Your task to perform on an android device: install app "Firefox Browser" Image 0: 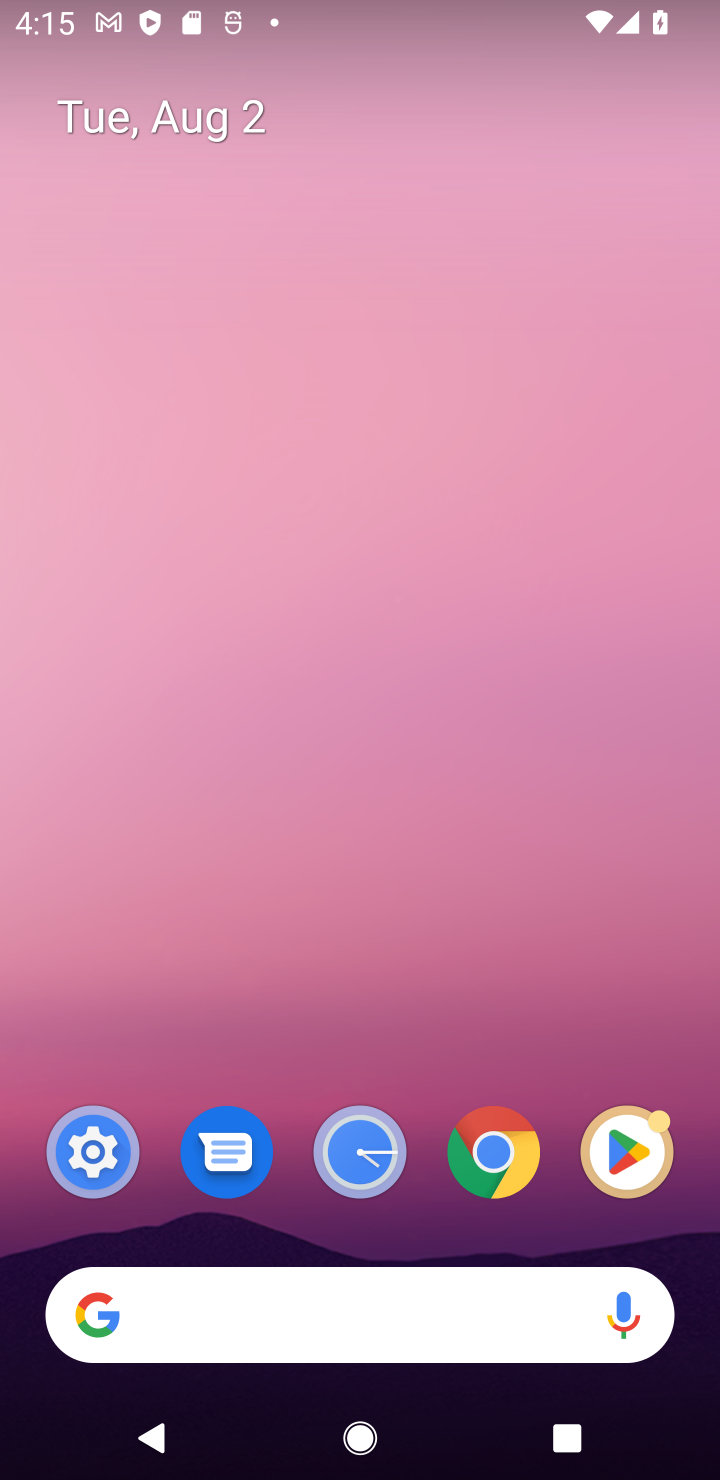
Step 0: drag from (569, 1190) to (572, 185)
Your task to perform on an android device: install app "Firefox Browser" Image 1: 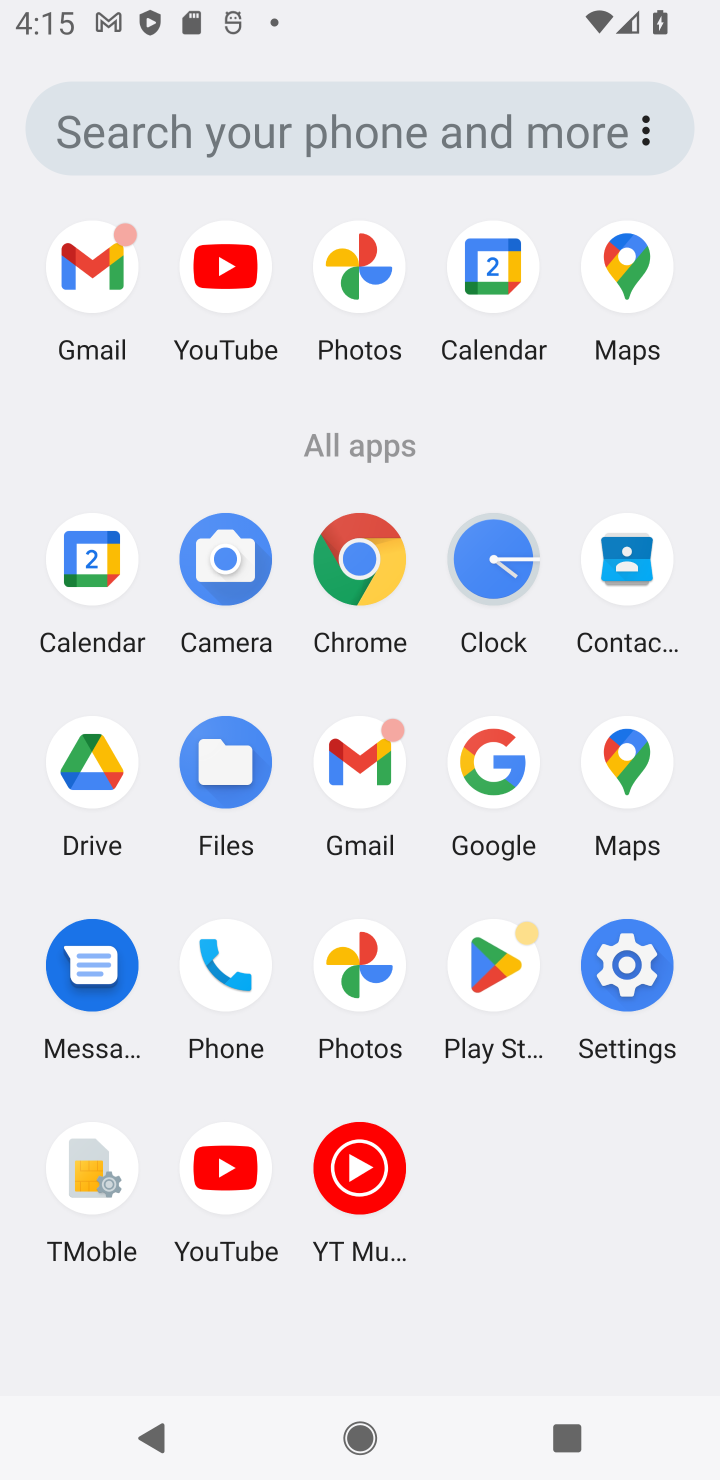
Step 1: click (499, 976)
Your task to perform on an android device: install app "Firefox Browser" Image 2: 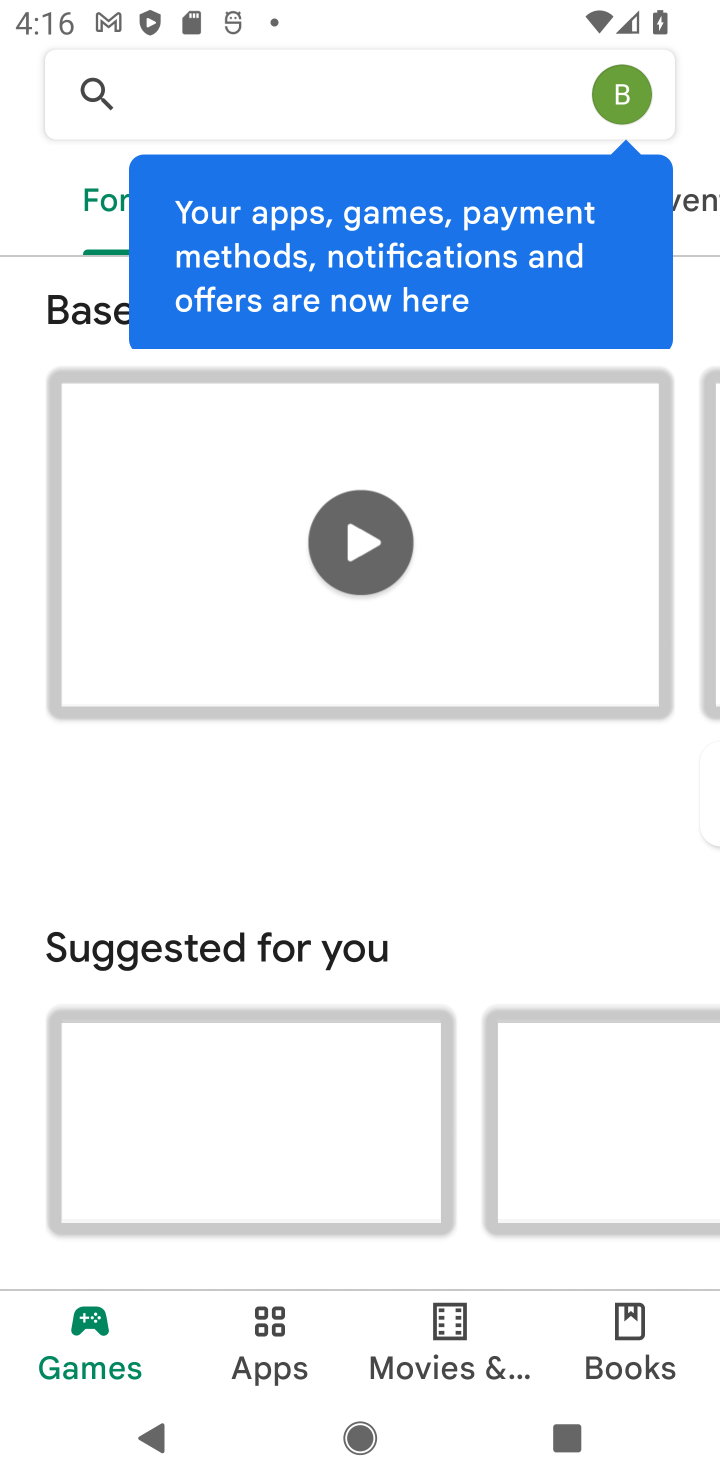
Step 2: click (384, 108)
Your task to perform on an android device: install app "Firefox Browser" Image 3: 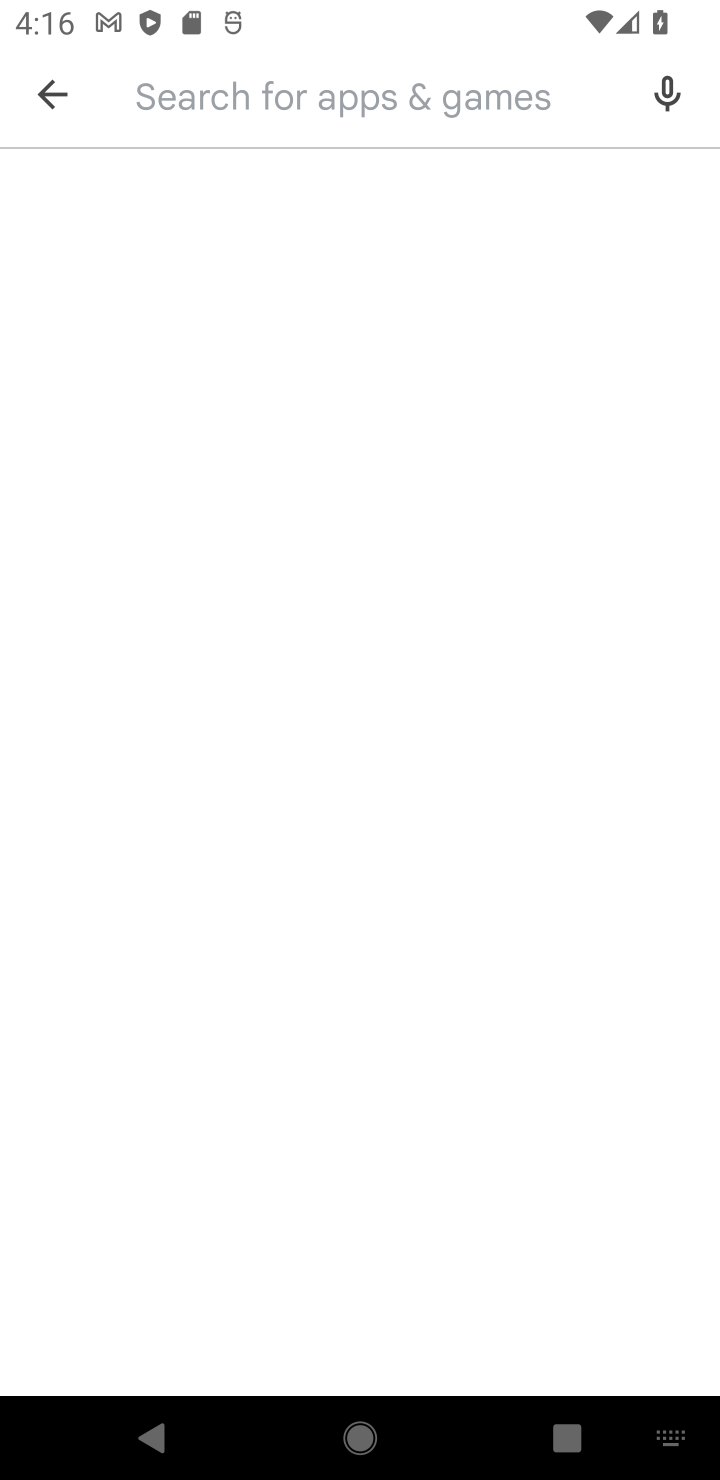
Step 3: type "Firefox browser"
Your task to perform on an android device: install app "Firefox Browser" Image 4: 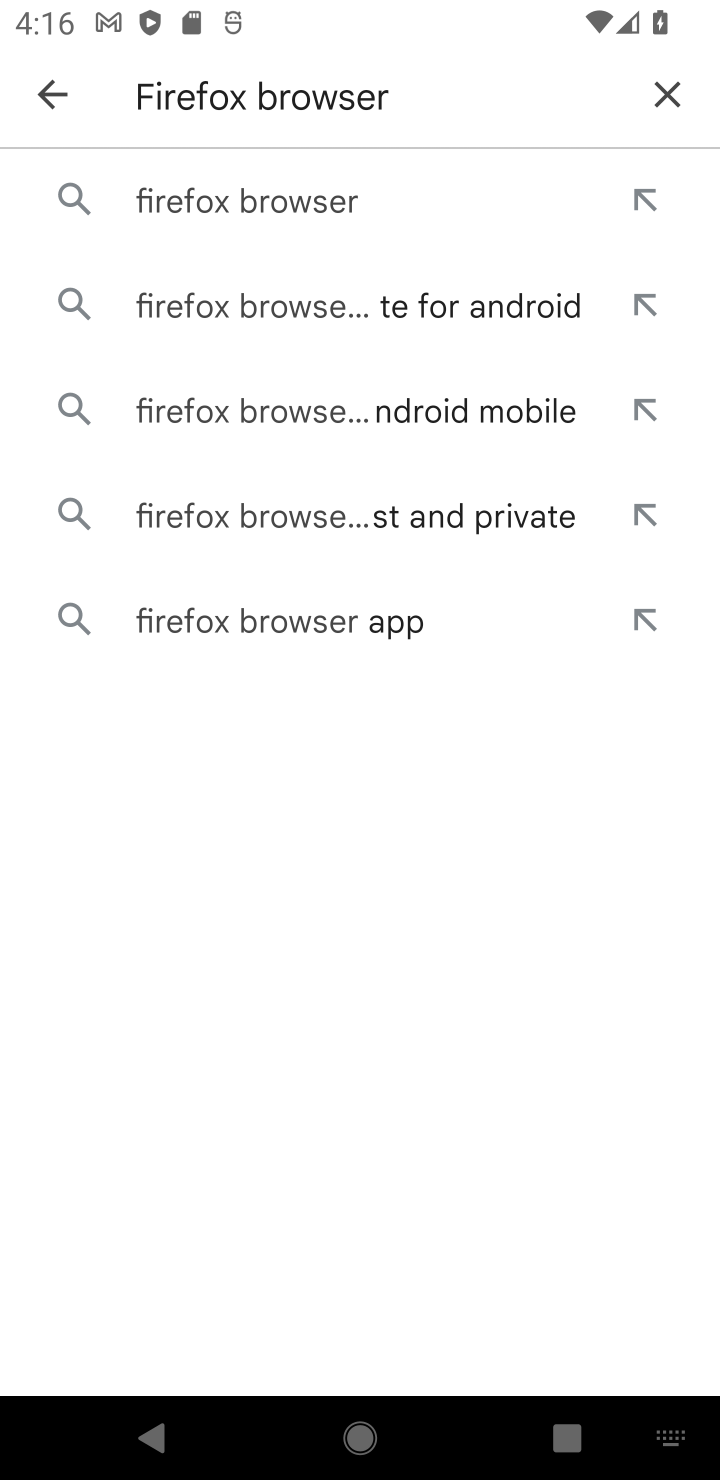
Step 4: press enter
Your task to perform on an android device: install app "Firefox Browser" Image 5: 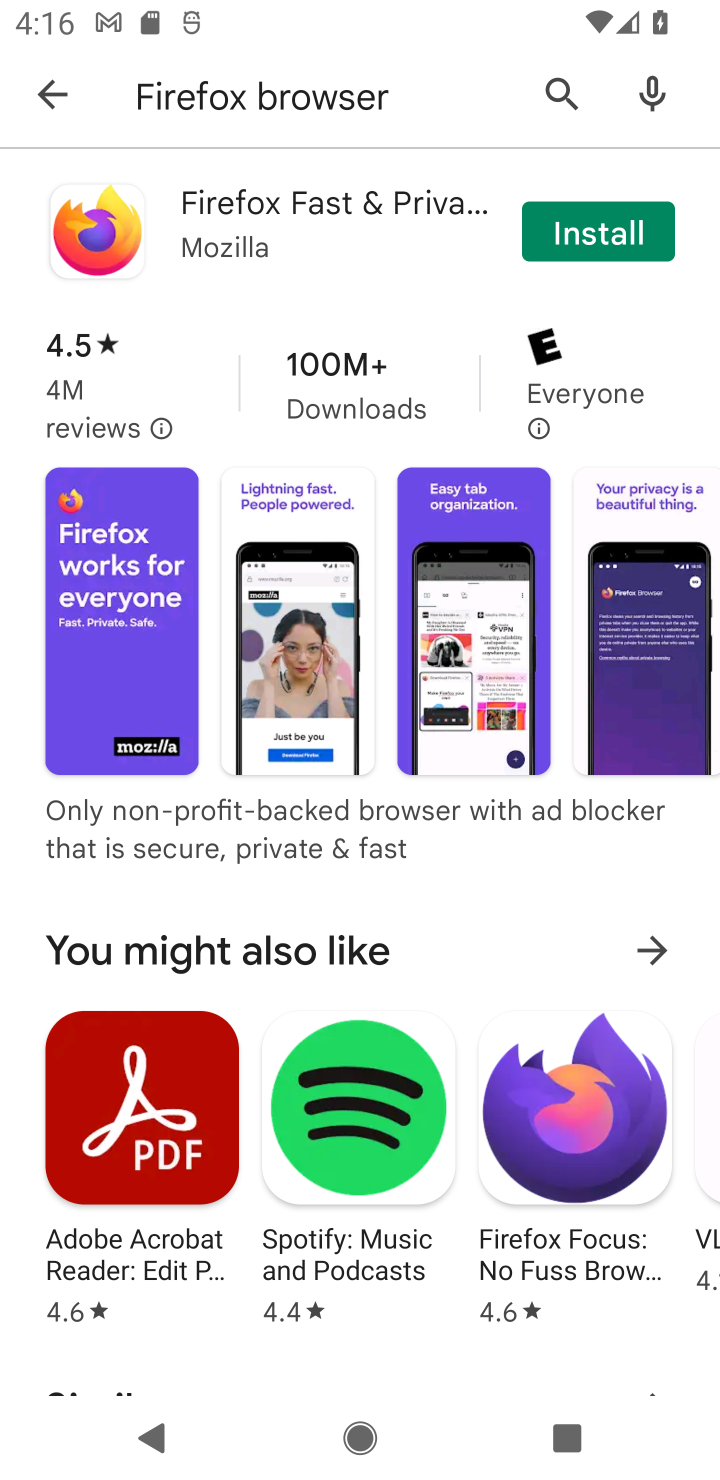
Step 5: click (601, 240)
Your task to perform on an android device: install app "Firefox Browser" Image 6: 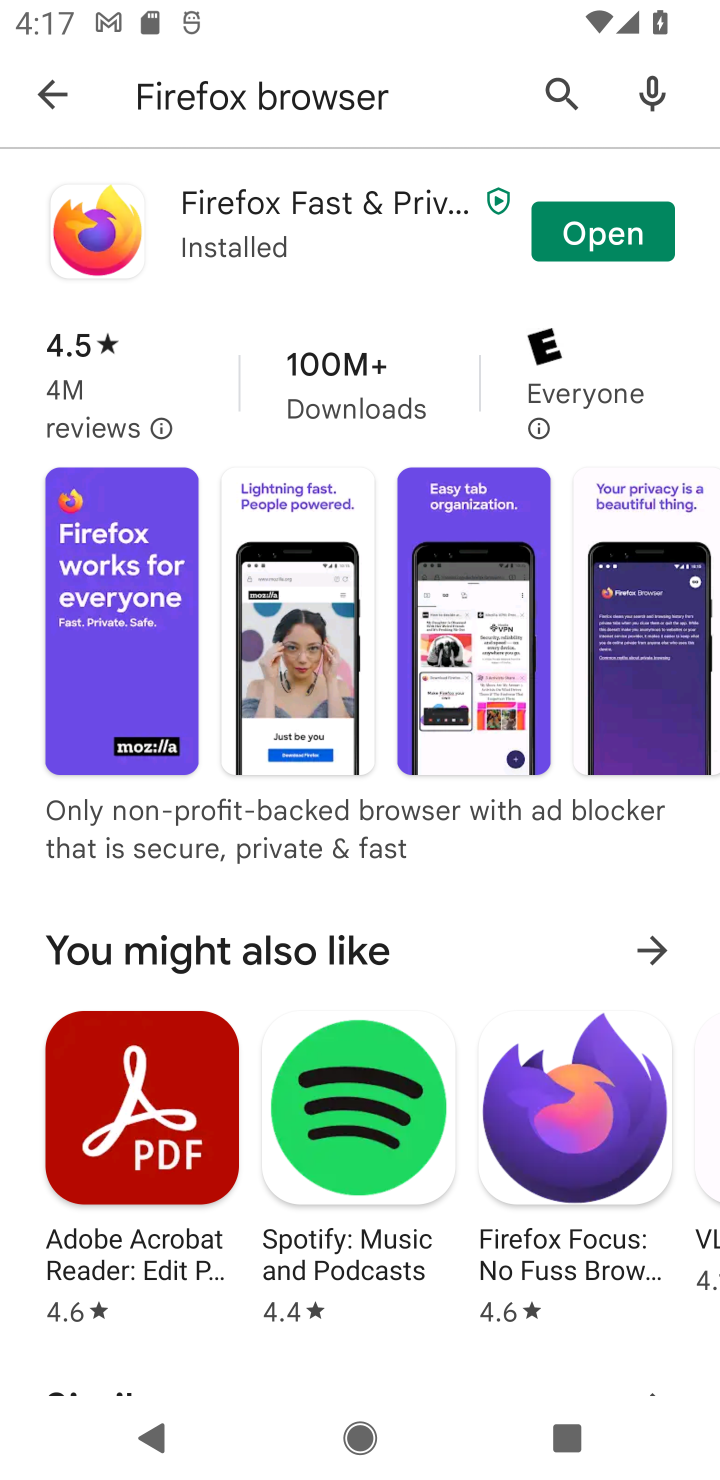
Step 6: task complete